Your task to perform on an android device: Open settings on Google Maps Image 0: 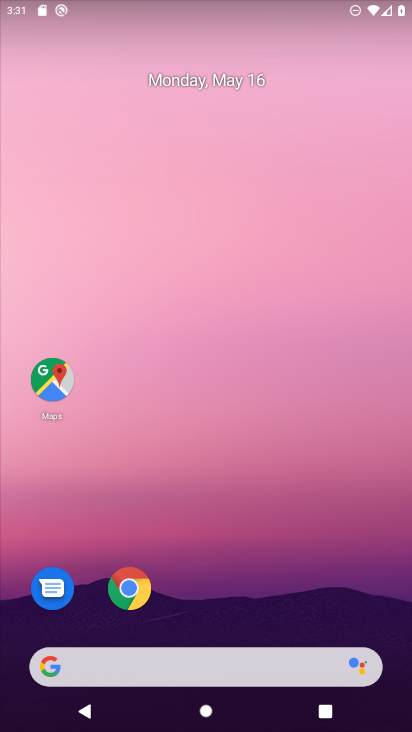
Step 0: click (50, 378)
Your task to perform on an android device: Open settings on Google Maps Image 1: 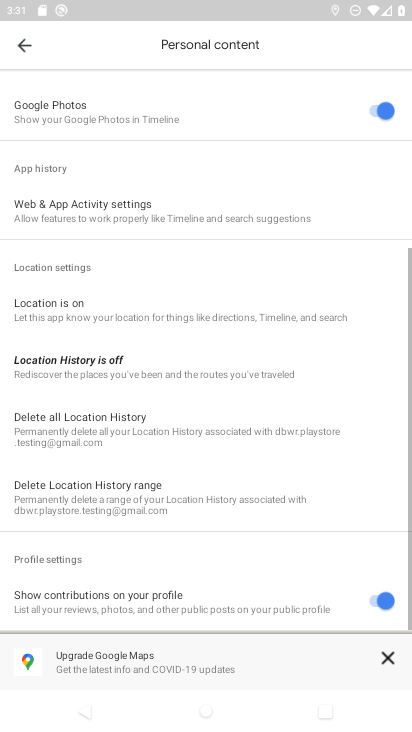
Step 1: click (18, 44)
Your task to perform on an android device: Open settings on Google Maps Image 2: 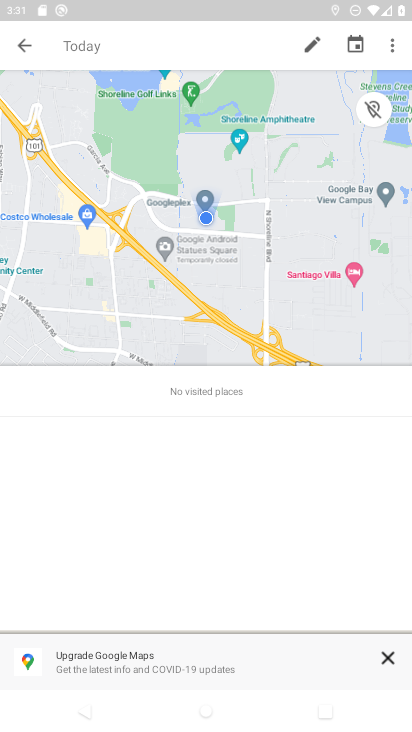
Step 2: click (18, 44)
Your task to perform on an android device: Open settings on Google Maps Image 3: 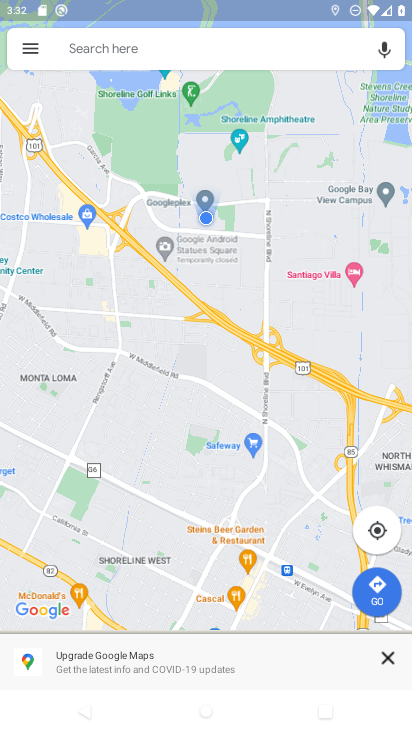
Step 3: click (28, 46)
Your task to perform on an android device: Open settings on Google Maps Image 4: 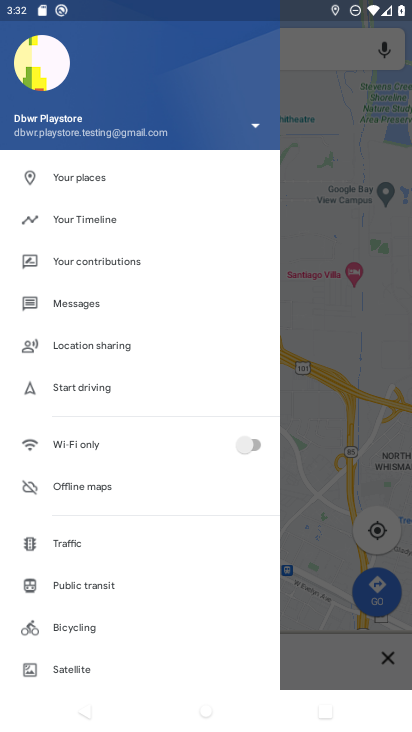
Step 4: drag from (129, 626) to (132, 358)
Your task to perform on an android device: Open settings on Google Maps Image 5: 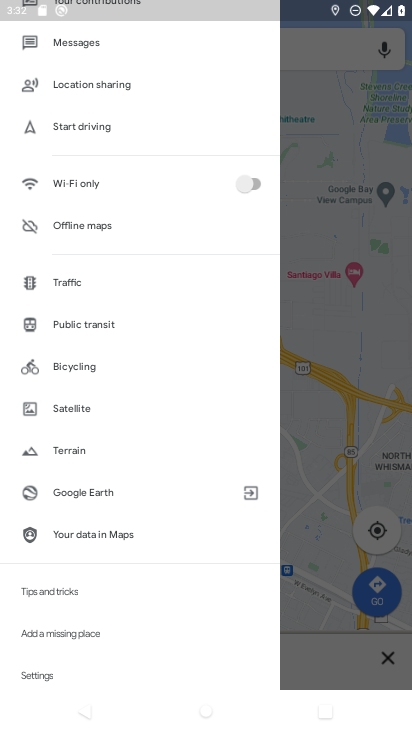
Step 5: click (37, 675)
Your task to perform on an android device: Open settings on Google Maps Image 6: 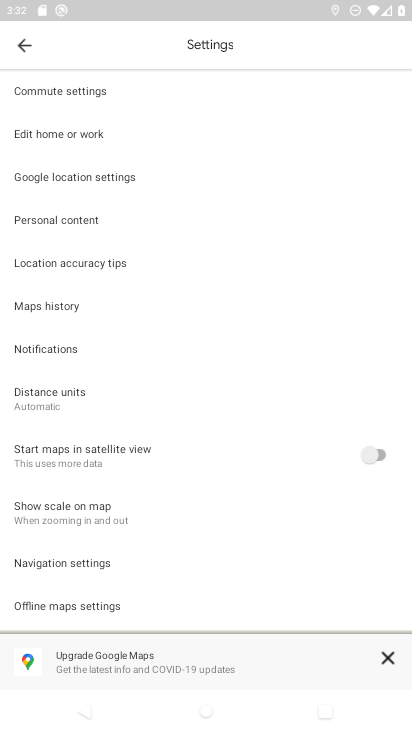
Step 6: task complete